Your task to perform on an android device: Search for Mexican restaurants on Maps Image 0: 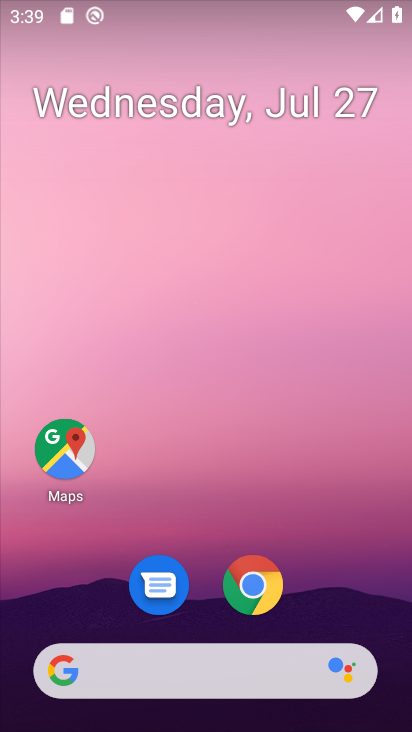
Step 0: drag from (308, 571) to (316, 112)
Your task to perform on an android device: Search for Mexican restaurants on Maps Image 1: 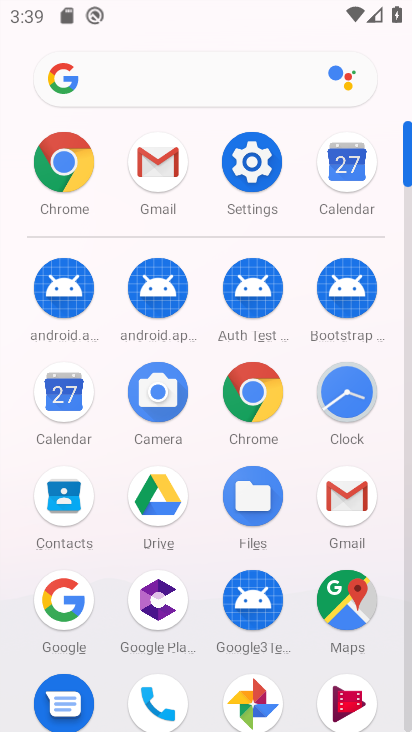
Step 1: click (352, 615)
Your task to perform on an android device: Search for Mexican restaurants on Maps Image 2: 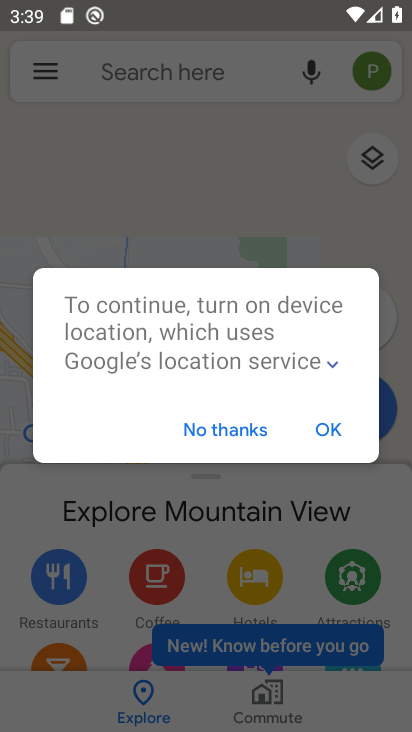
Step 2: click (247, 419)
Your task to perform on an android device: Search for Mexican restaurants on Maps Image 3: 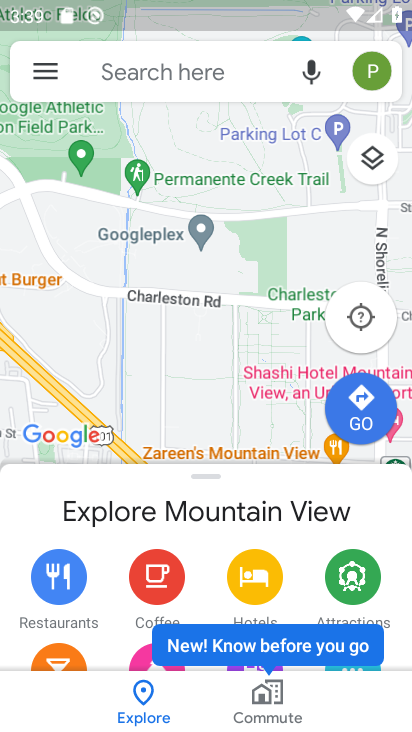
Step 3: click (233, 69)
Your task to perform on an android device: Search for Mexican restaurants on Maps Image 4: 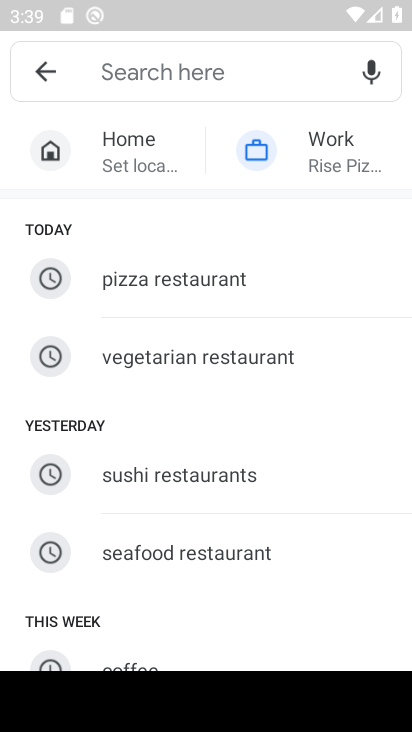
Step 4: drag from (224, 503) to (203, 299)
Your task to perform on an android device: Search for Mexican restaurants on Maps Image 5: 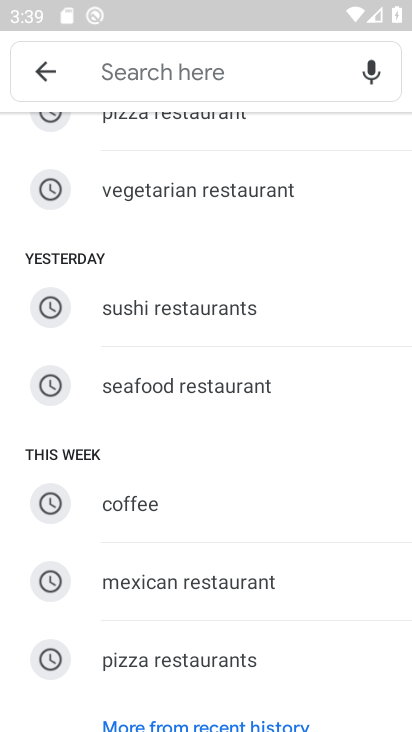
Step 5: click (229, 574)
Your task to perform on an android device: Search for Mexican restaurants on Maps Image 6: 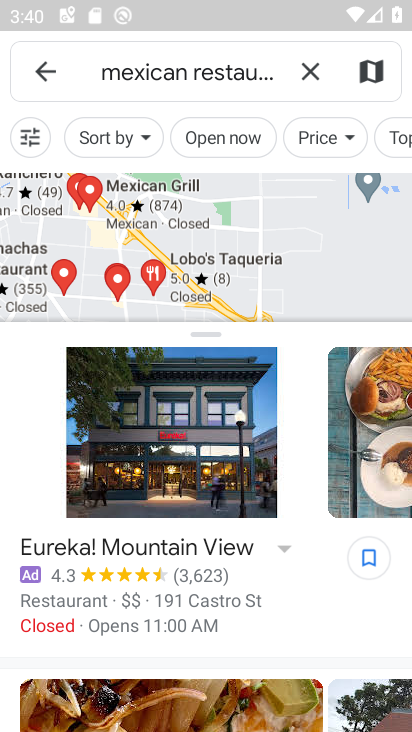
Step 6: task complete